Your task to perform on an android device: open app "Adobe Acrobat Reader: Edit PDF" (install if not already installed) Image 0: 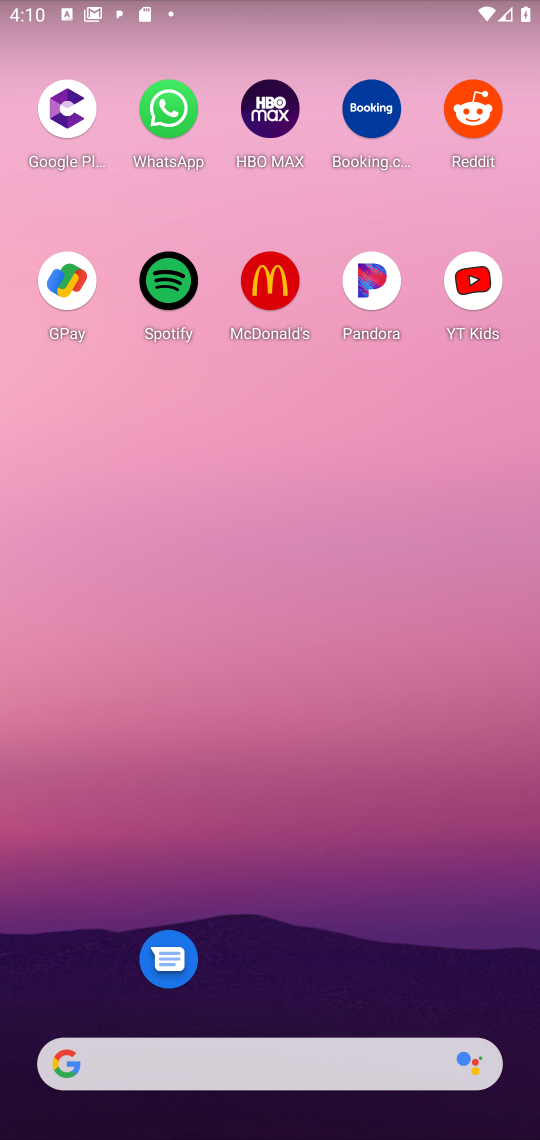
Step 0: drag from (206, 1082) to (230, 92)
Your task to perform on an android device: open app "Adobe Acrobat Reader: Edit PDF" (install if not already installed) Image 1: 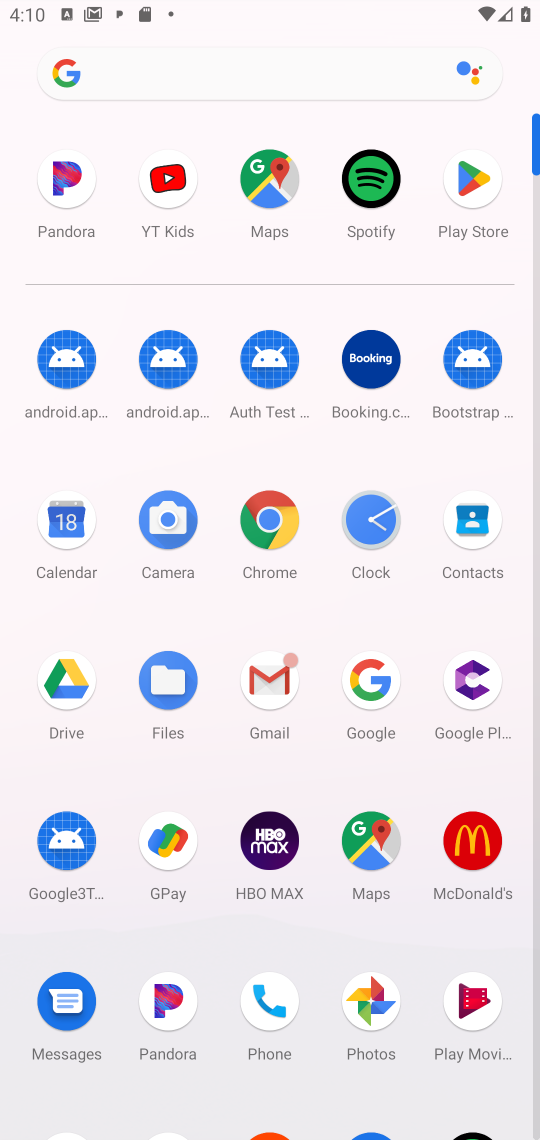
Step 1: click (444, 210)
Your task to perform on an android device: open app "Adobe Acrobat Reader: Edit PDF" (install if not already installed) Image 2: 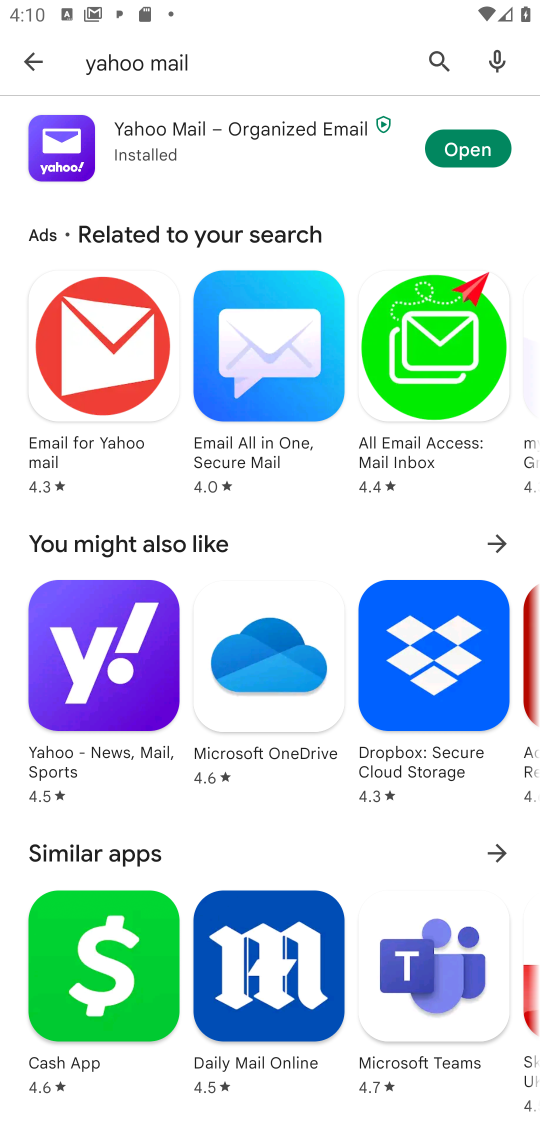
Step 2: click (31, 64)
Your task to perform on an android device: open app "Adobe Acrobat Reader: Edit PDF" (install if not already installed) Image 3: 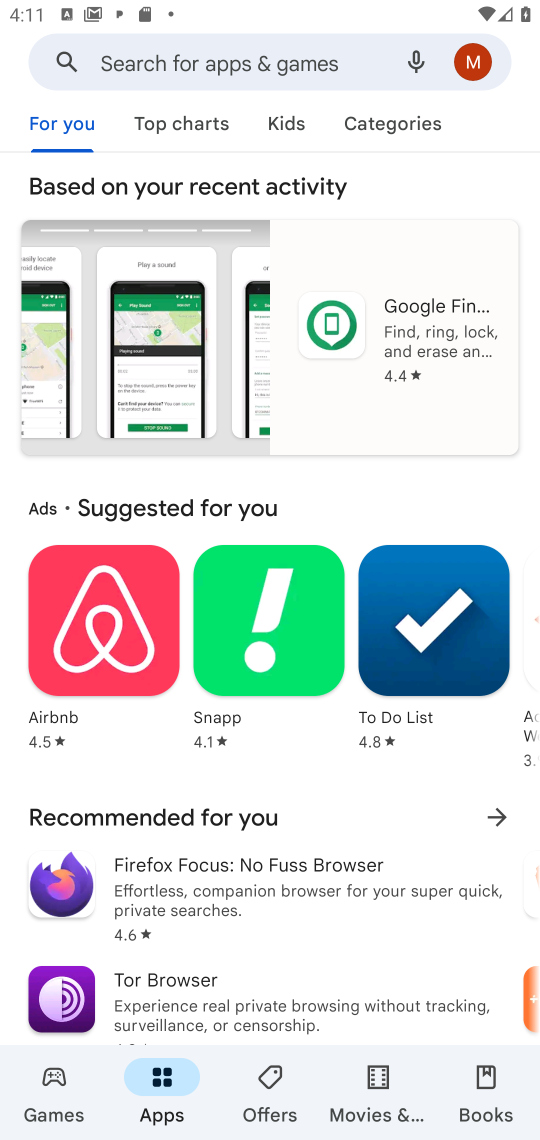
Step 3: click (183, 51)
Your task to perform on an android device: open app "Adobe Acrobat Reader: Edit PDF" (install if not already installed) Image 4: 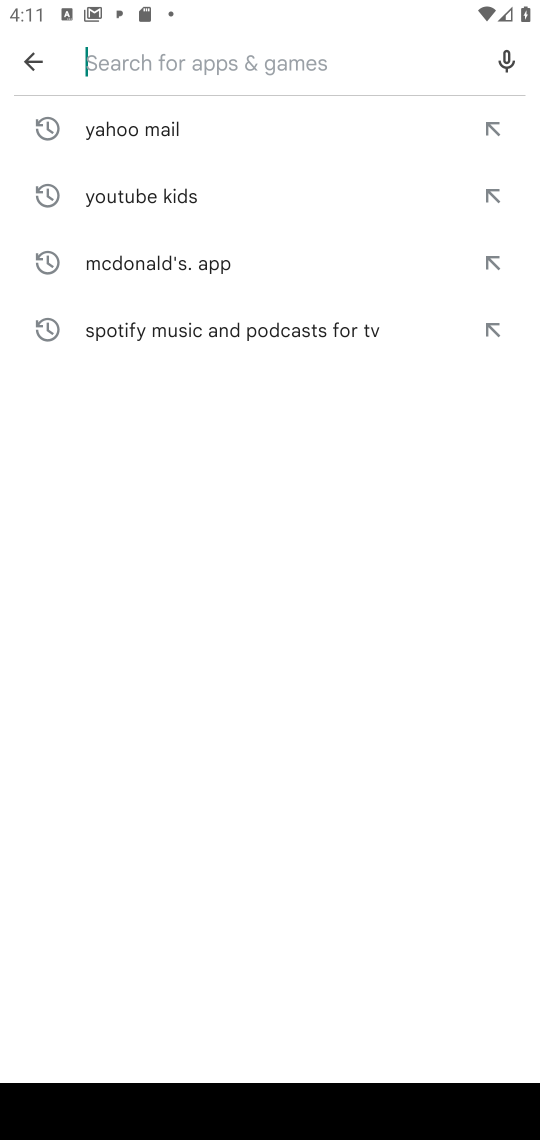
Step 4: type "Adobe Acrobat Reader: Edit PDF"
Your task to perform on an android device: open app "Adobe Acrobat Reader: Edit PDF" (install if not already installed) Image 5: 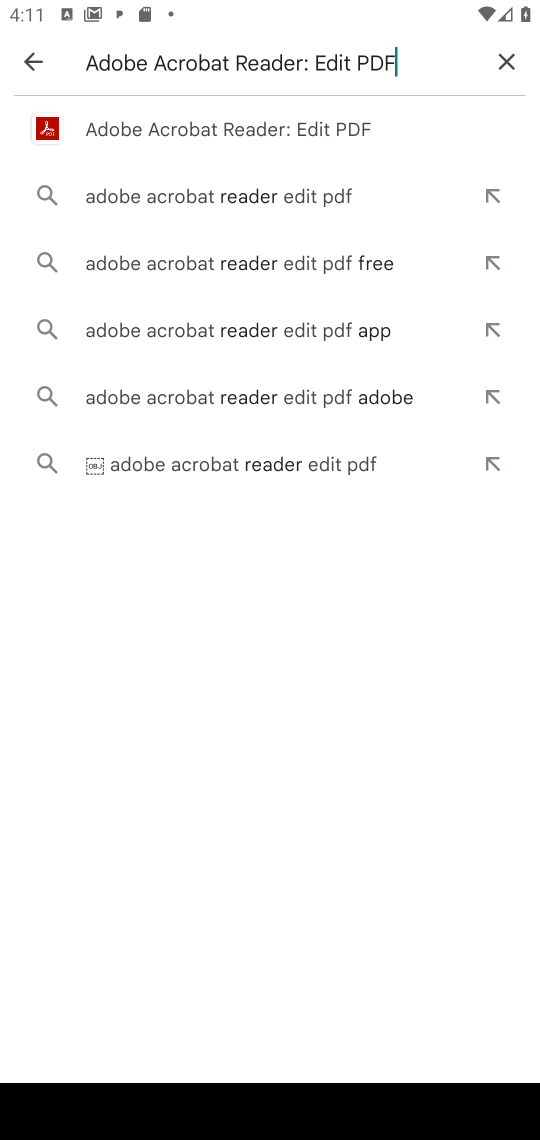
Step 5: click (78, 134)
Your task to perform on an android device: open app "Adobe Acrobat Reader: Edit PDF" (install if not already installed) Image 6: 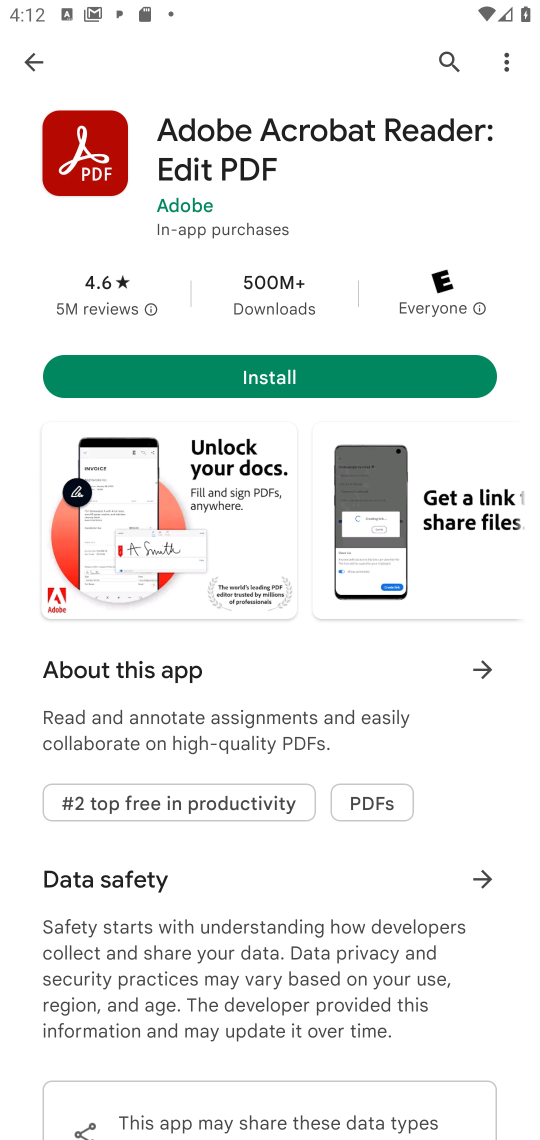
Step 6: click (204, 364)
Your task to perform on an android device: open app "Adobe Acrobat Reader: Edit PDF" (install if not already installed) Image 7: 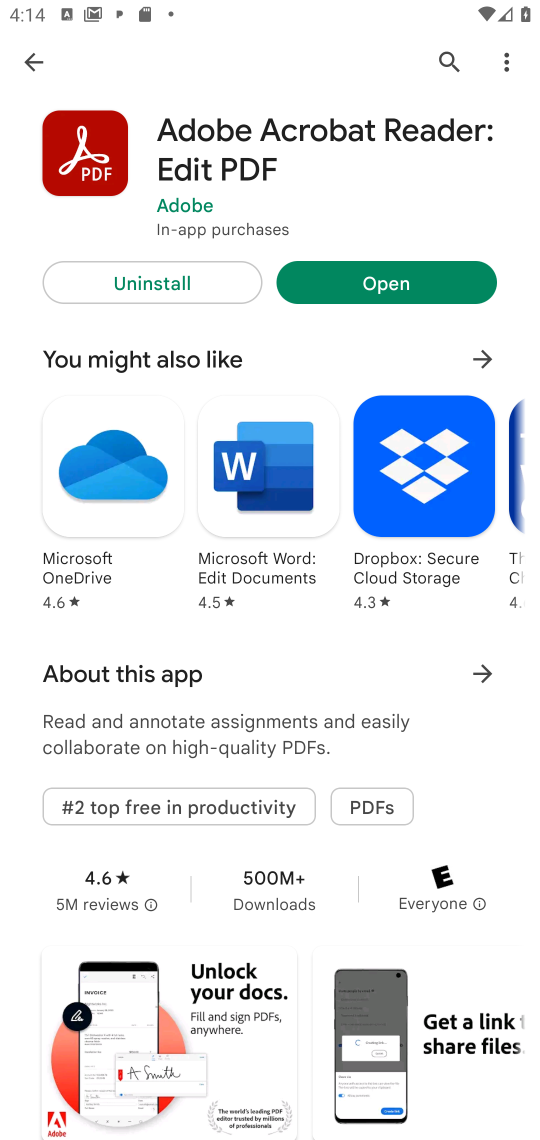
Step 7: click (359, 300)
Your task to perform on an android device: open app "Adobe Acrobat Reader: Edit PDF" (install if not already installed) Image 8: 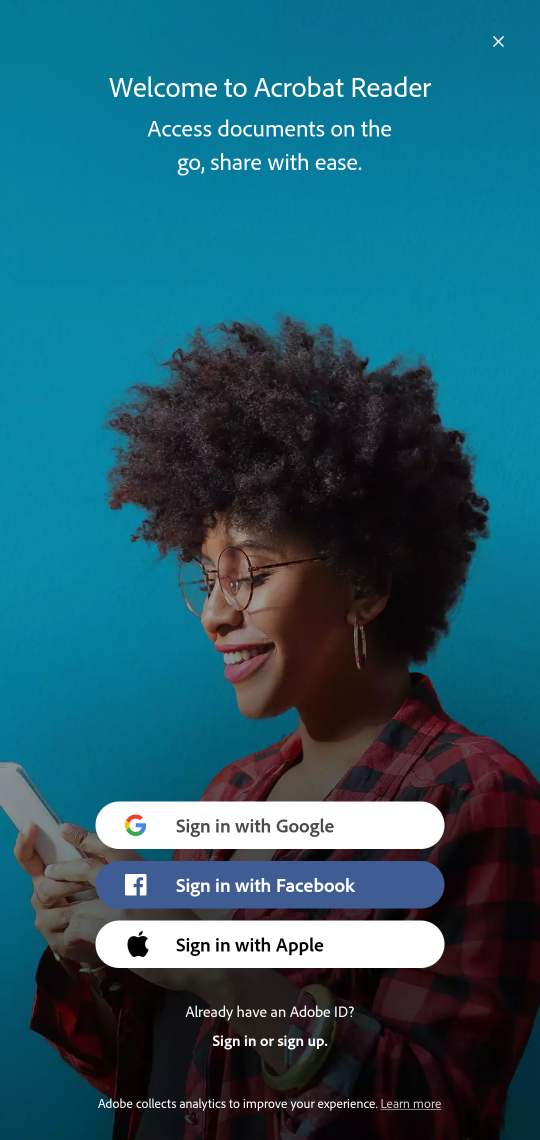
Step 8: task complete